Your task to perform on an android device: Do I have any events tomorrow? Image 0: 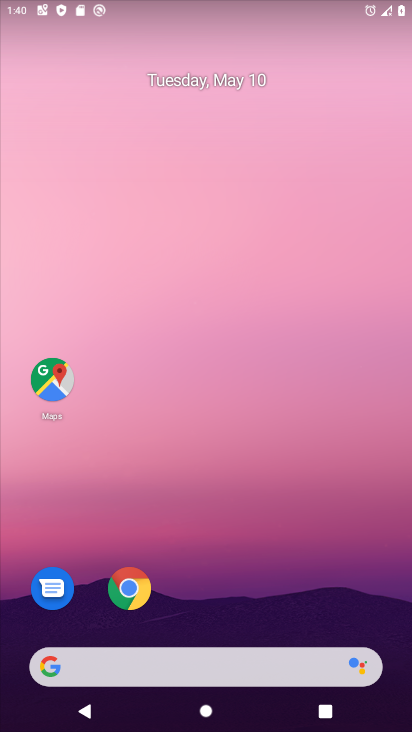
Step 0: drag from (262, 544) to (198, 89)
Your task to perform on an android device: Do I have any events tomorrow? Image 1: 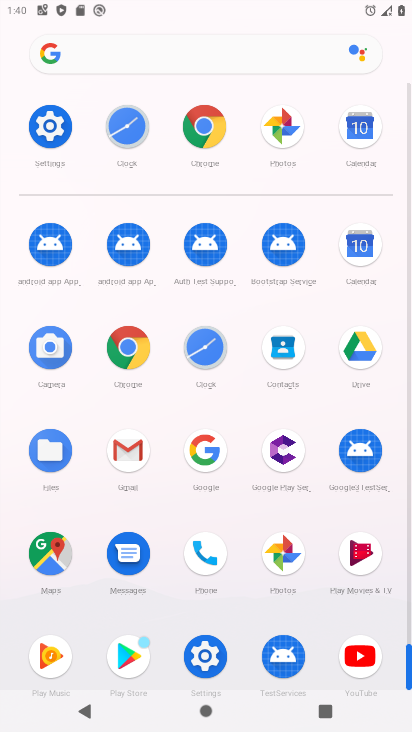
Step 1: click (352, 236)
Your task to perform on an android device: Do I have any events tomorrow? Image 2: 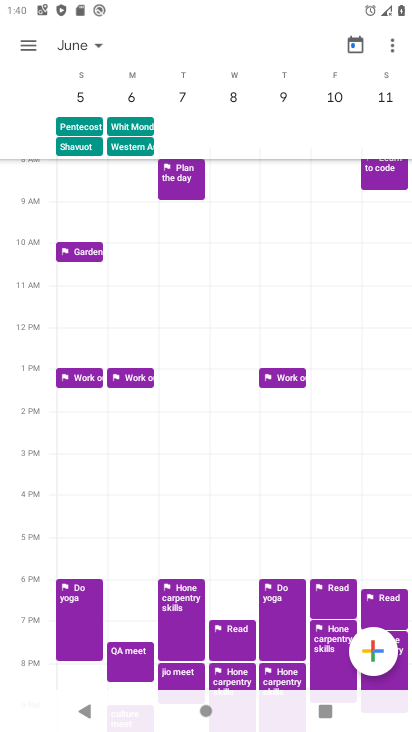
Step 2: click (27, 45)
Your task to perform on an android device: Do I have any events tomorrow? Image 3: 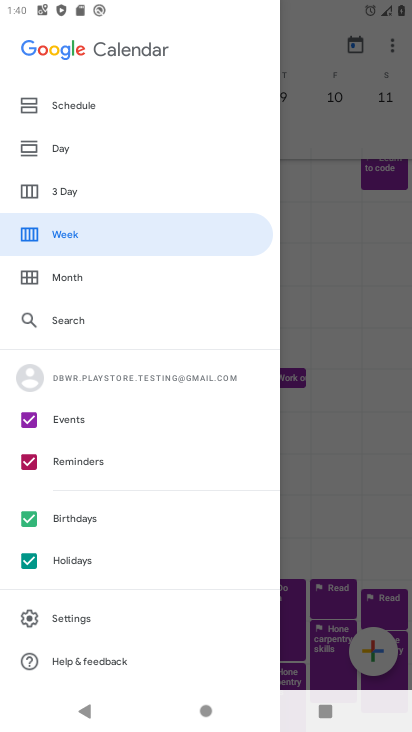
Step 3: click (71, 280)
Your task to perform on an android device: Do I have any events tomorrow? Image 4: 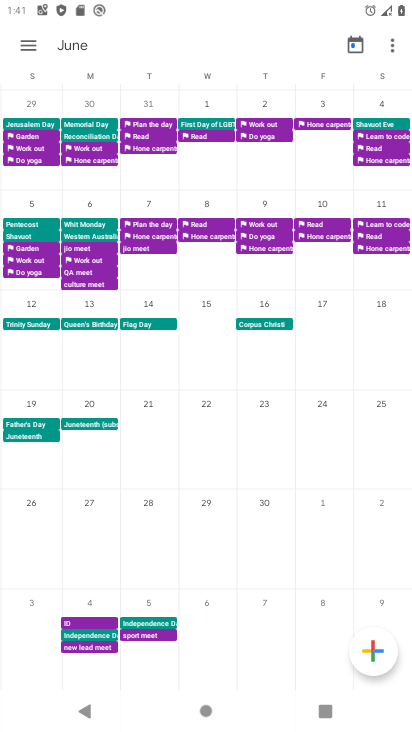
Step 4: drag from (85, 388) to (349, 364)
Your task to perform on an android device: Do I have any events tomorrow? Image 5: 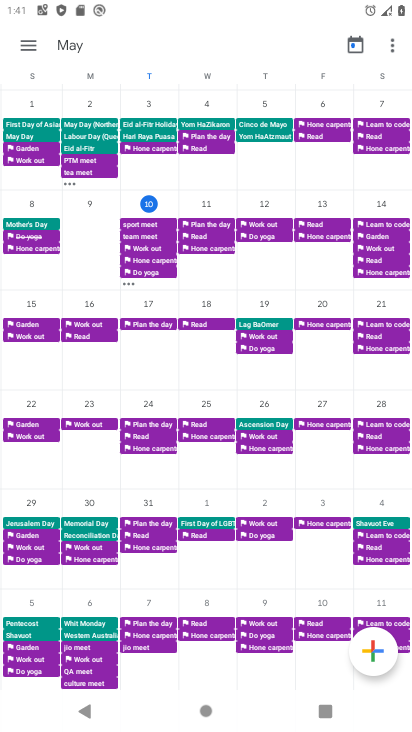
Step 5: click (215, 208)
Your task to perform on an android device: Do I have any events tomorrow? Image 6: 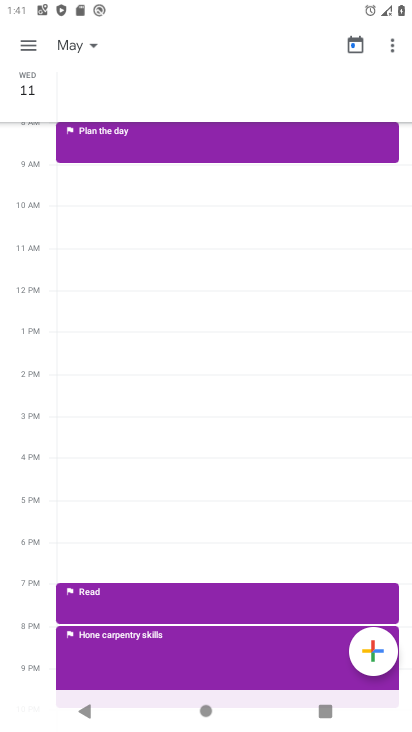
Step 6: task complete